Your task to perform on an android device: Play the last video I watched on Youtube Image 0: 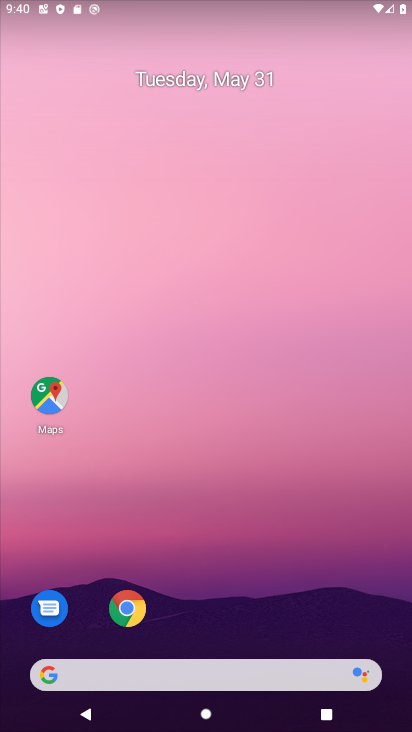
Step 0: drag from (196, 648) to (402, 387)
Your task to perform on an android device: Play the last video I watched on Youtube Image 1: 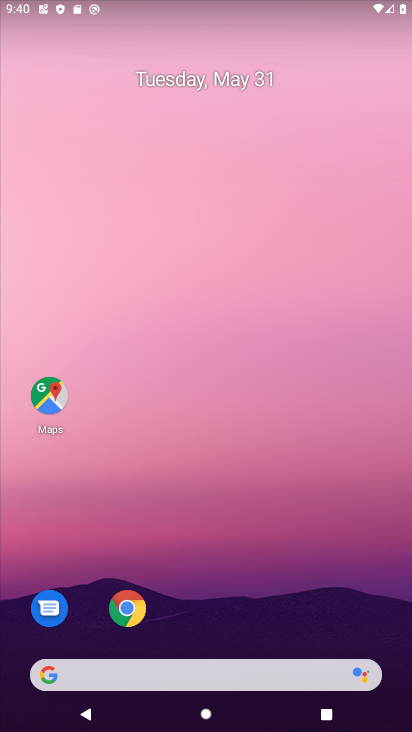
Step 1: drag from (179, 641) to (282, 22)
Your task to perform on an android device: Play the last video I watched on Youtube Image 2: 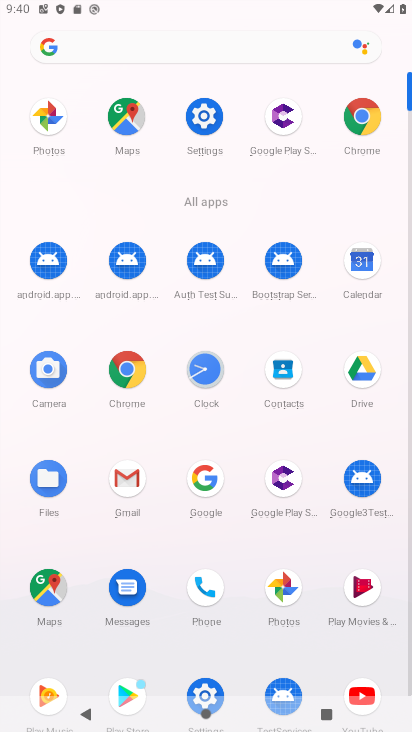
Step 2: click (362, 690)
Your task to perform on an android device: Play the last video I watched on Youtube Image 3: 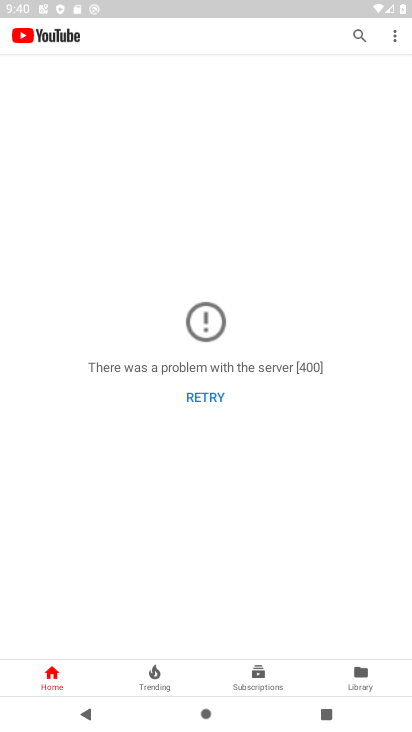
Step 3: task complete